Your task to perform on an android device: Open network settings Image 0: 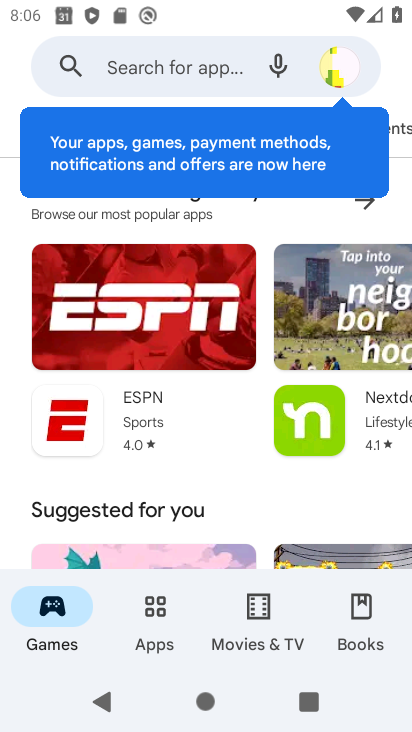
Step 0: press home button
Your task to perform on an android device: Open network settings Image 1: 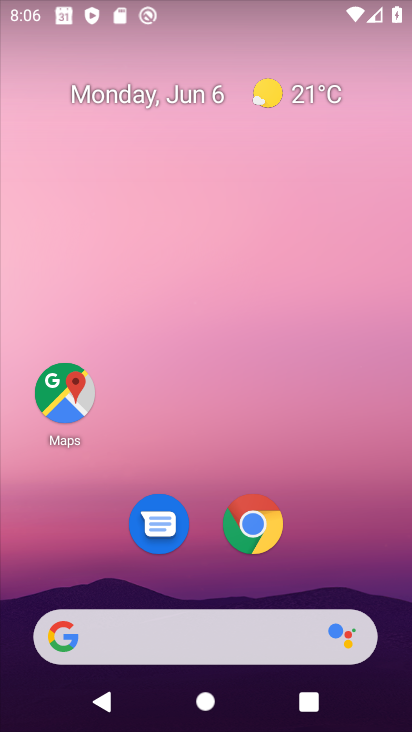
Step 1: drag from (320, 540) to (260, 42)
Your task to perform on an android device: Open network settings Image 2: 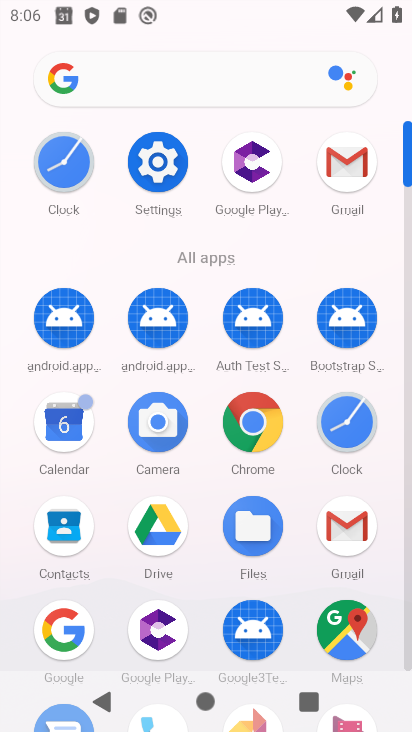
Step 2: click (164, 162)
Your task to perform on an android device: Open network settings Image 3: 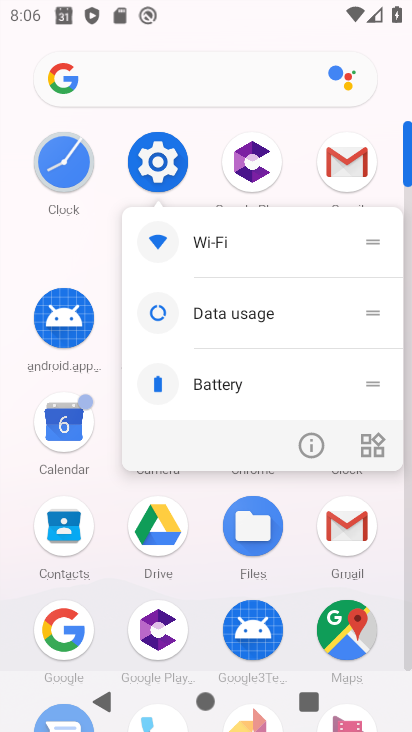
Step 3: click (164, 162)
Your task to perform on an android device: Open network settings Image 4: 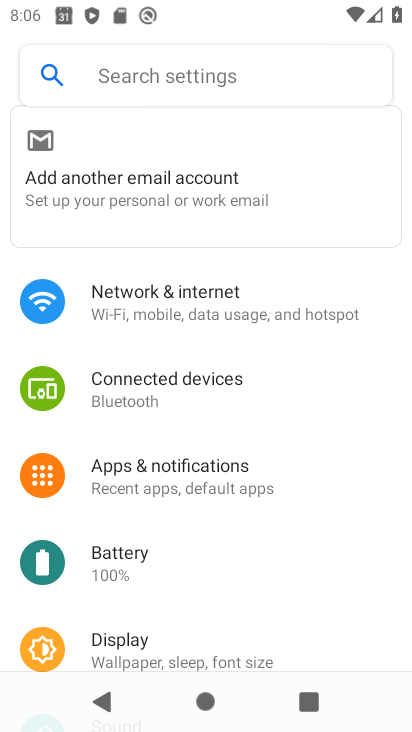
Step 4: click (206, 302)
Your task to perform on an android device: Open network settings Image 5: 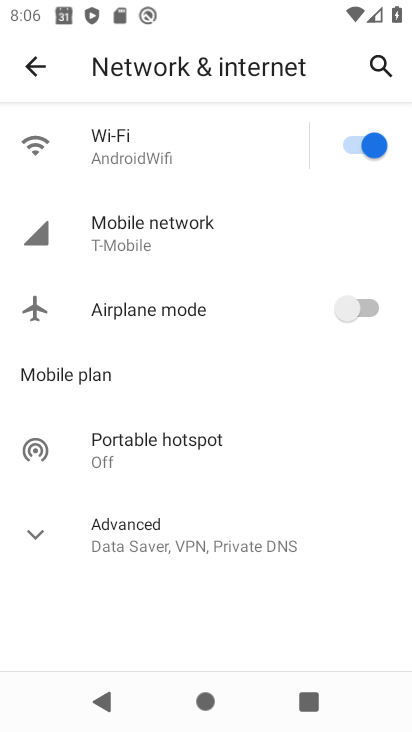
Step 5: task complete